Your task to perform on an android device: check battery use Image 0: 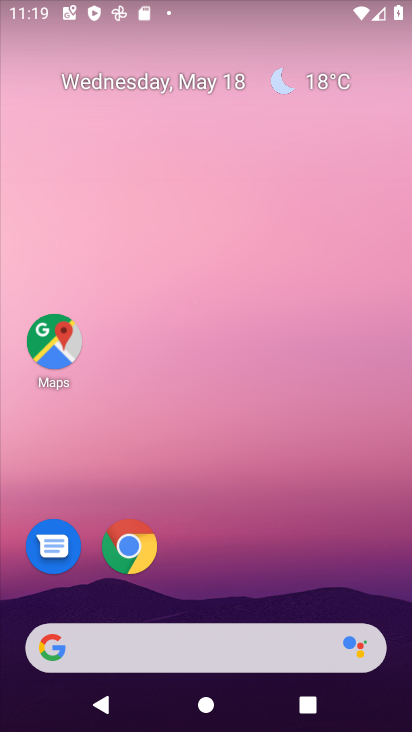
Step 0: drag from (220, 723) to (194, 137)
Your task to perform on an android device: check battery use Image 1: 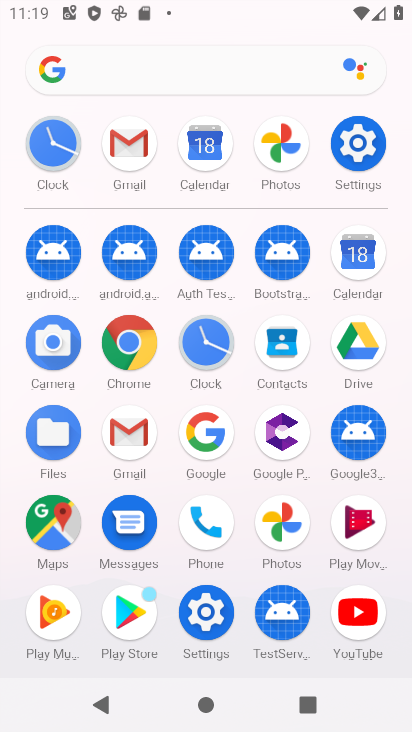
Step 1: click (359, 141)
Your task to perform on an android device: check battery use Image 2: 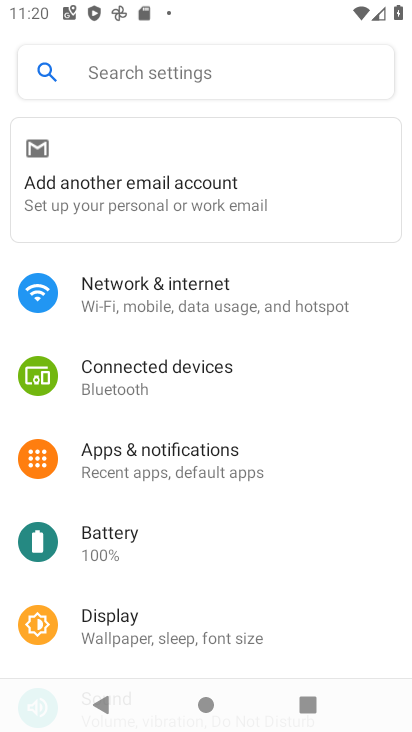
Step 2: click (99, 537)
Your task to perform on an android device: check battery use Image 3: 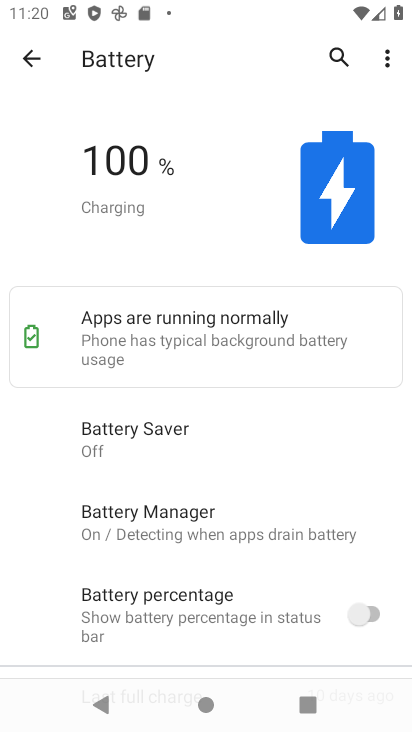
Step 3: click (387, 58)
Your task to perform on an android device: check battery use Image 4: 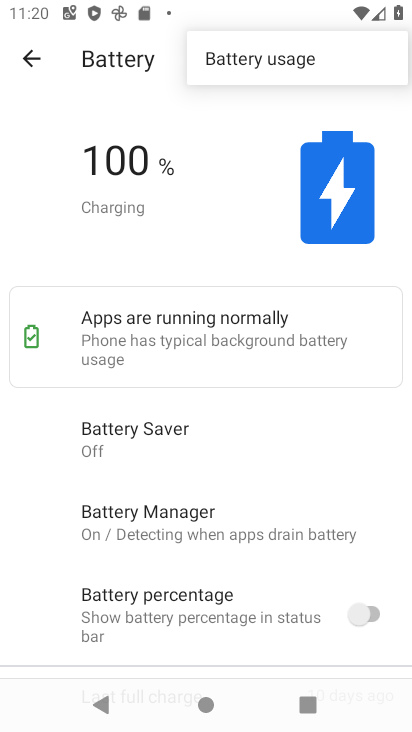
Step 4: click (229, 53)
Your task to perform on an android device: check battery use Image 5: 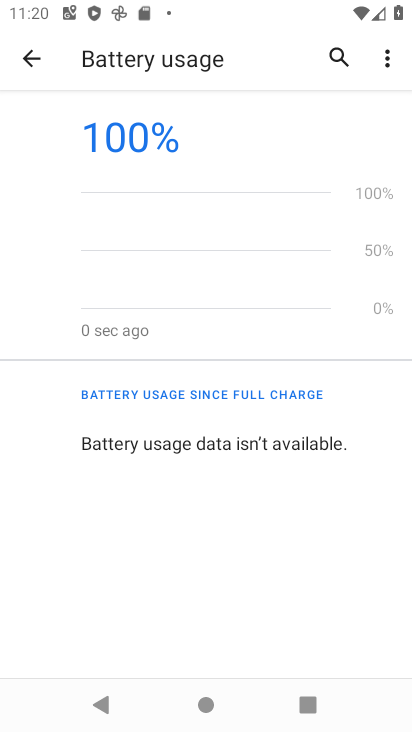
Step 5: task complete